Your task to perform on an android device: delete location history Image 0: 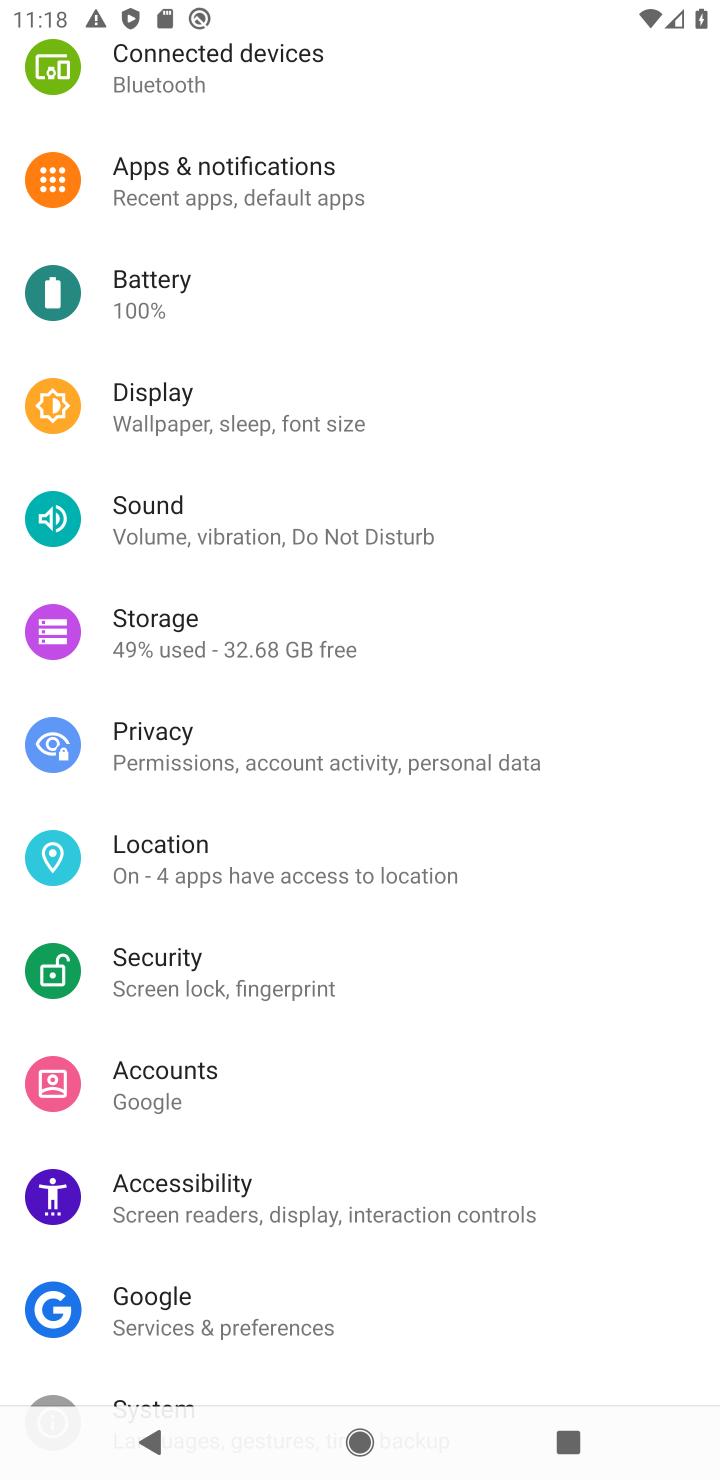
Step 0: click (217, 896)
Your task to perform on an android device: delete location history Image 1: 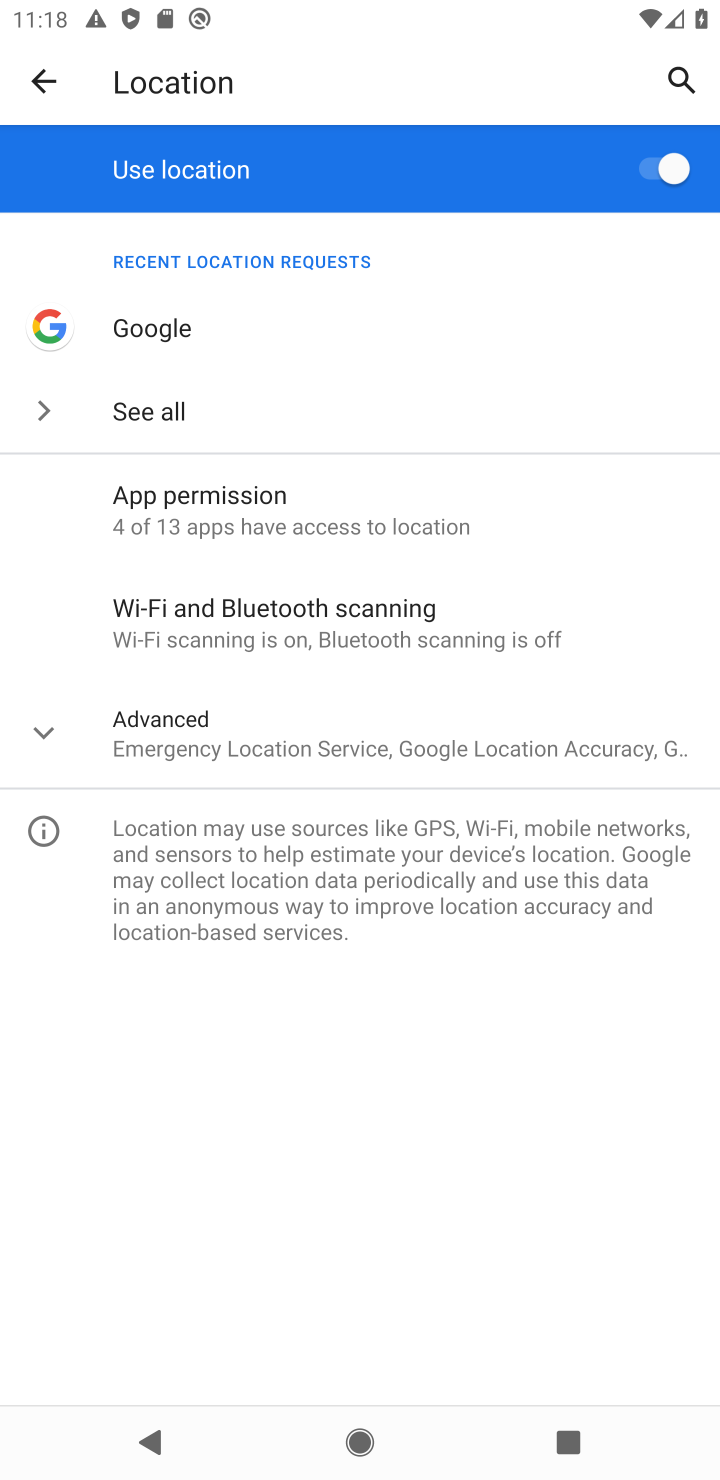
Step 1: click (237, 741)
Your task to perform on an android device: delete location history Image 2: 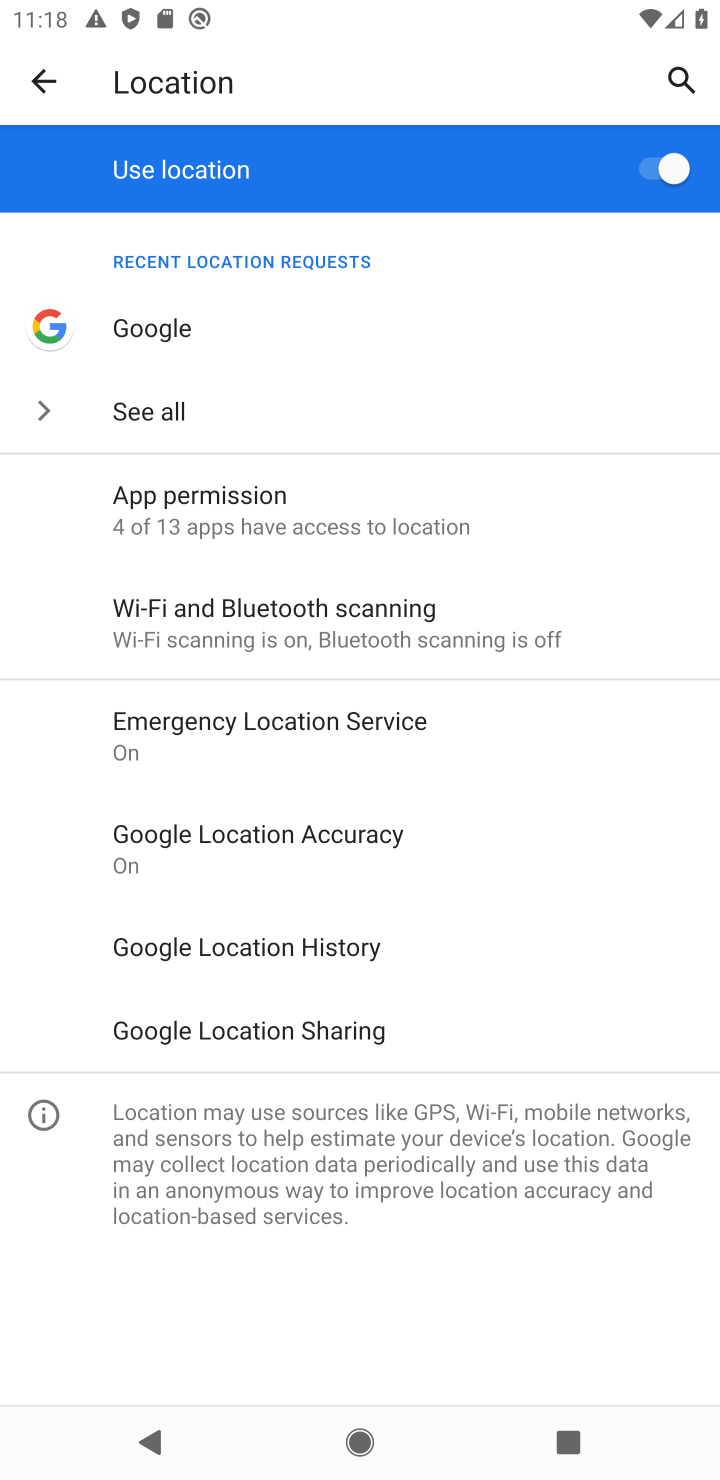
Step 2: click (336, 949)
Your task to perform on an android device: delete location history Image 3: 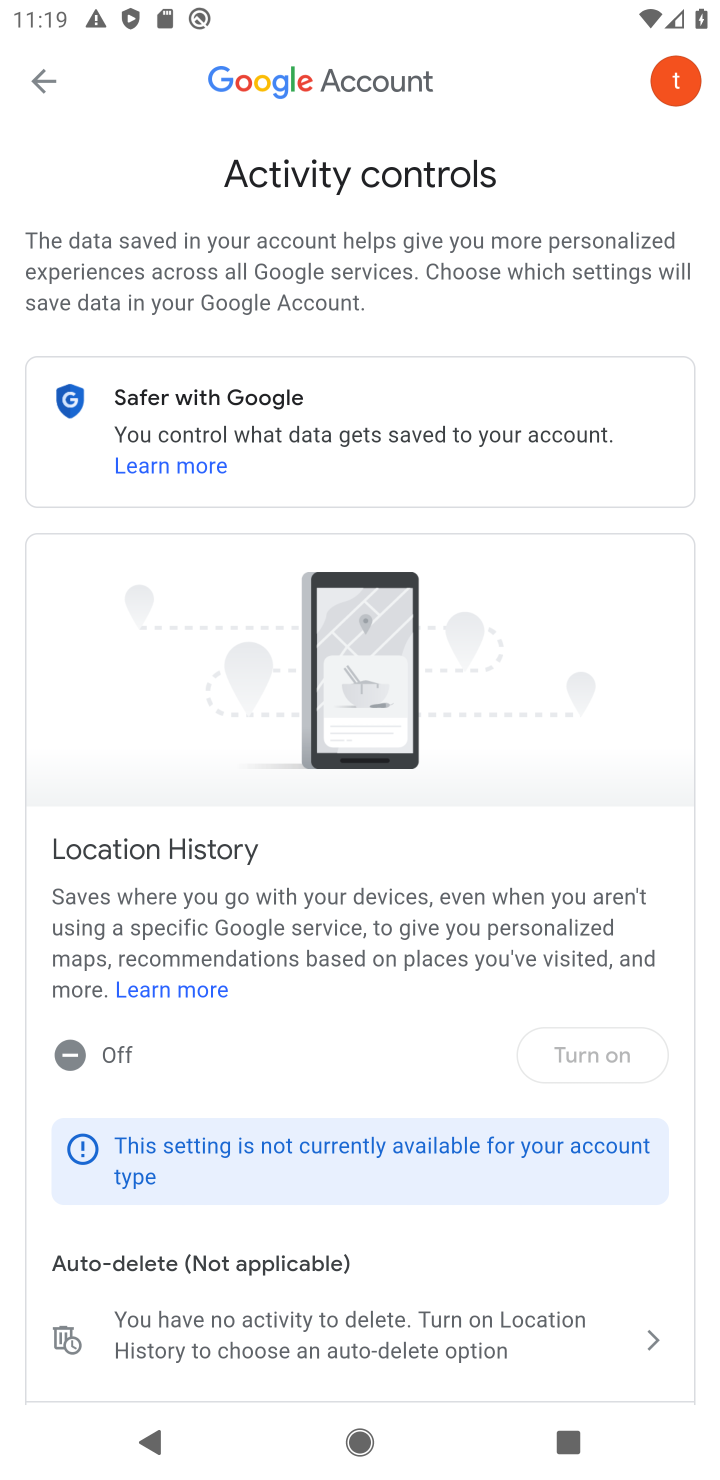
Step 3: click (399, 550)
Your task to perform on an android device: delete location history Image 4: 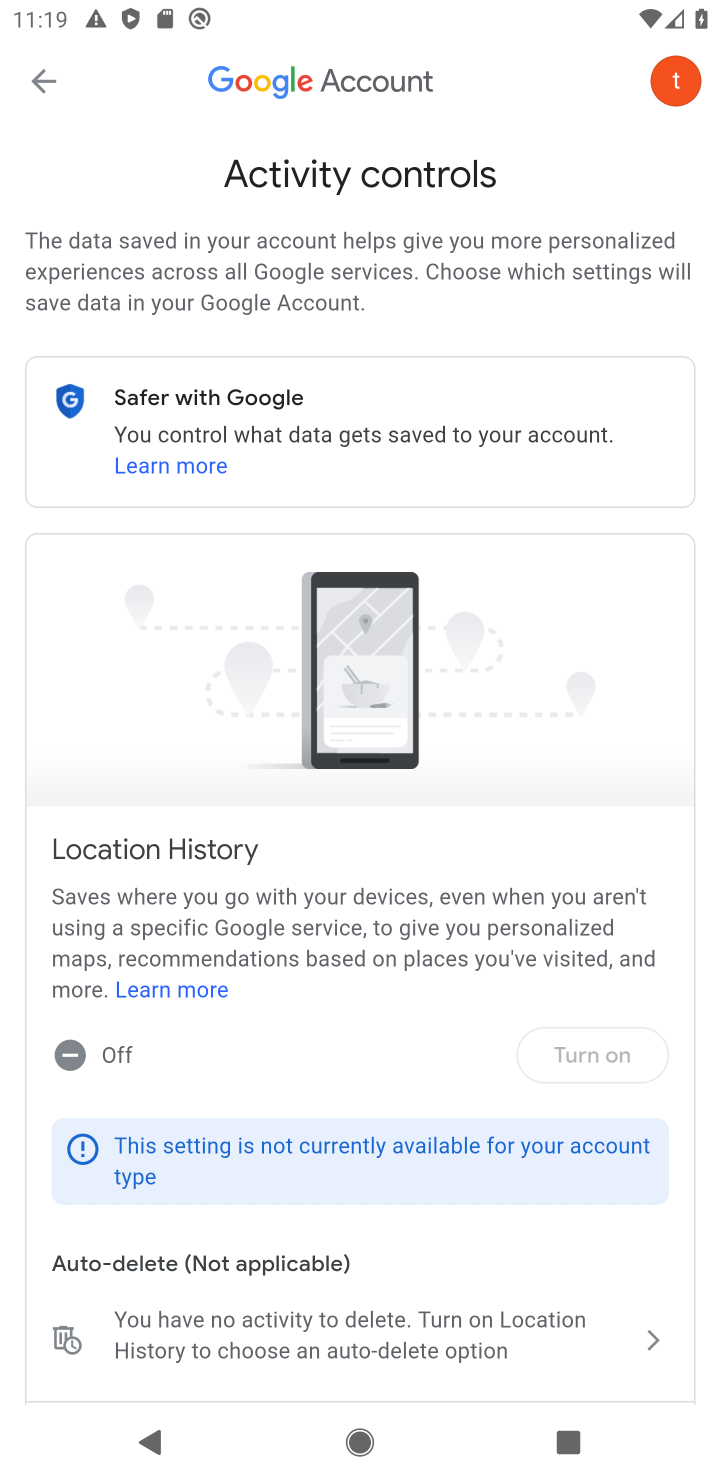
Step 4: click (111, 1332)
Your task to perform on an android device: delete location history Image 5: 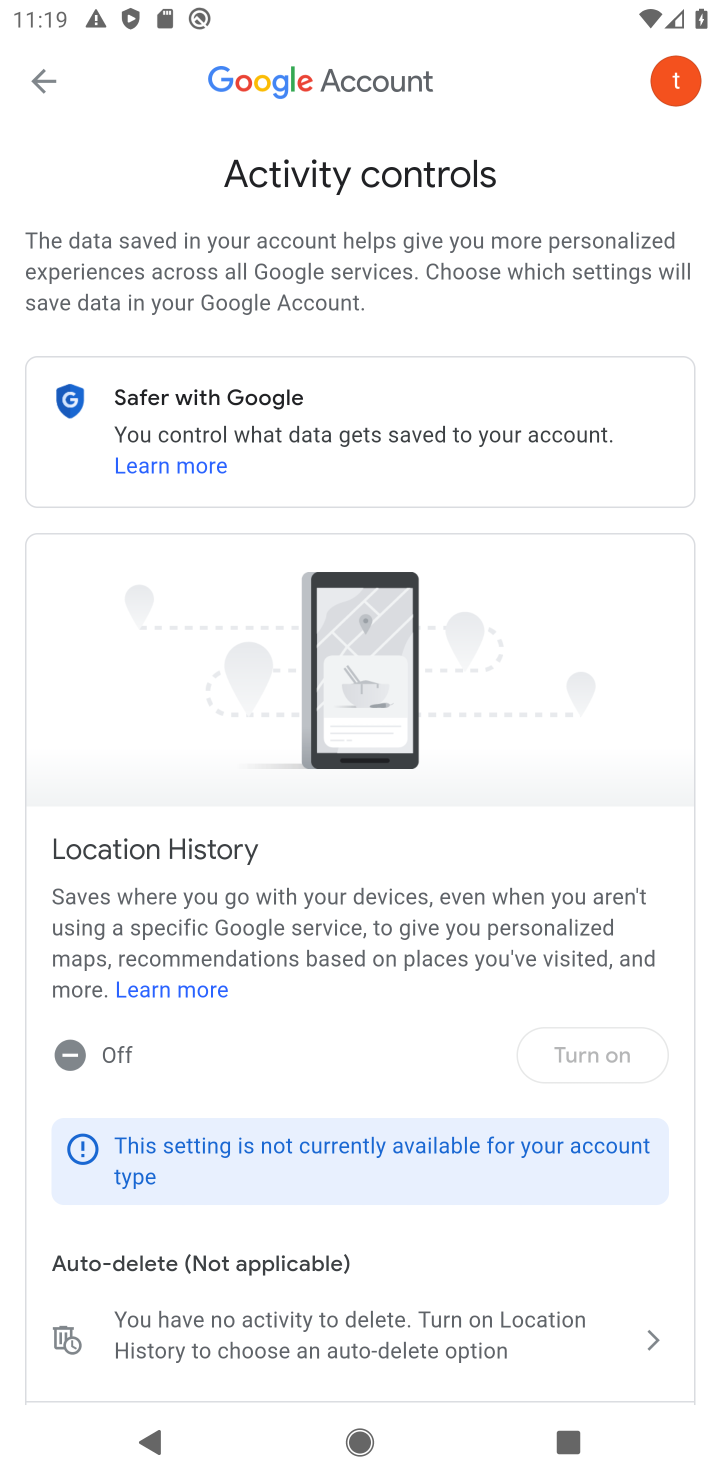
Step 5: task complete